Your task to perform on an android device: set the stopwatch Image 0: 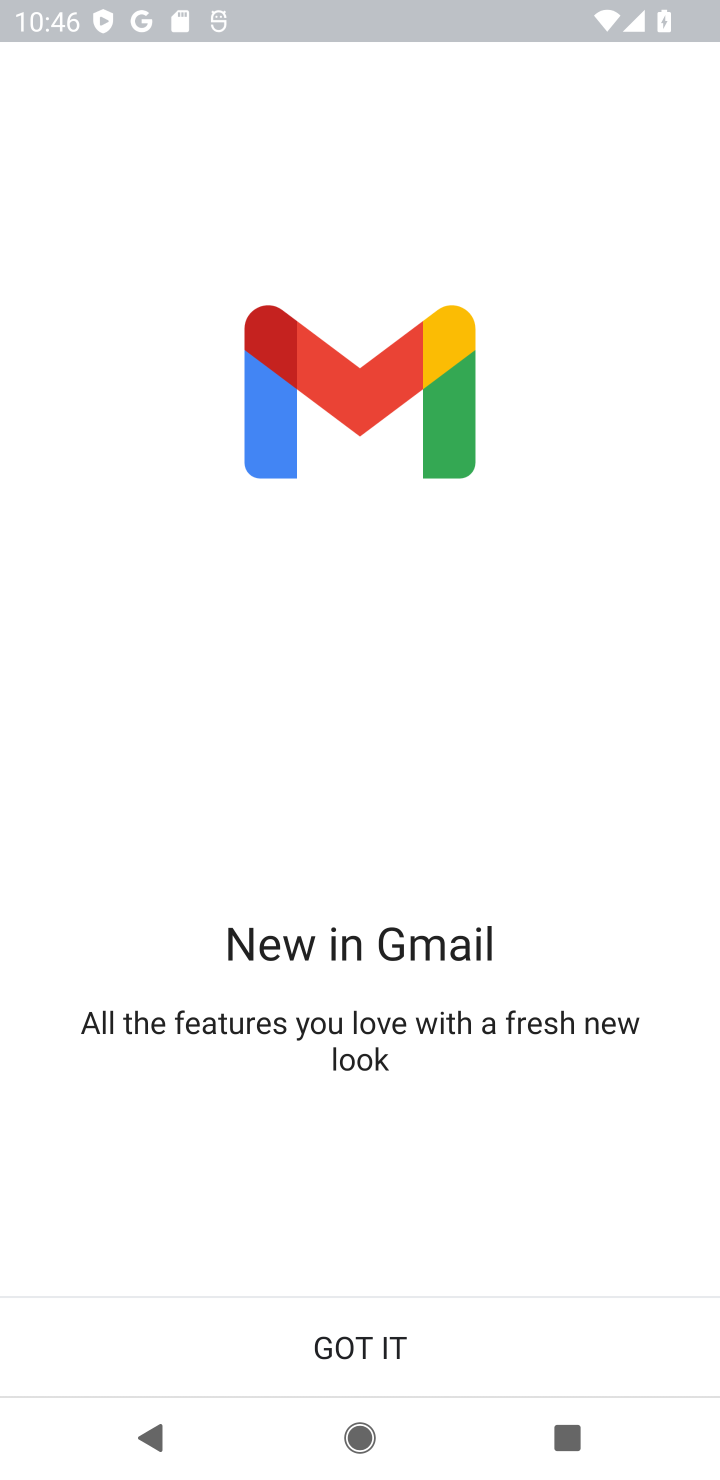
Step 0: press home button
Your task to perform on an android device: set the stopwatch Image 1: 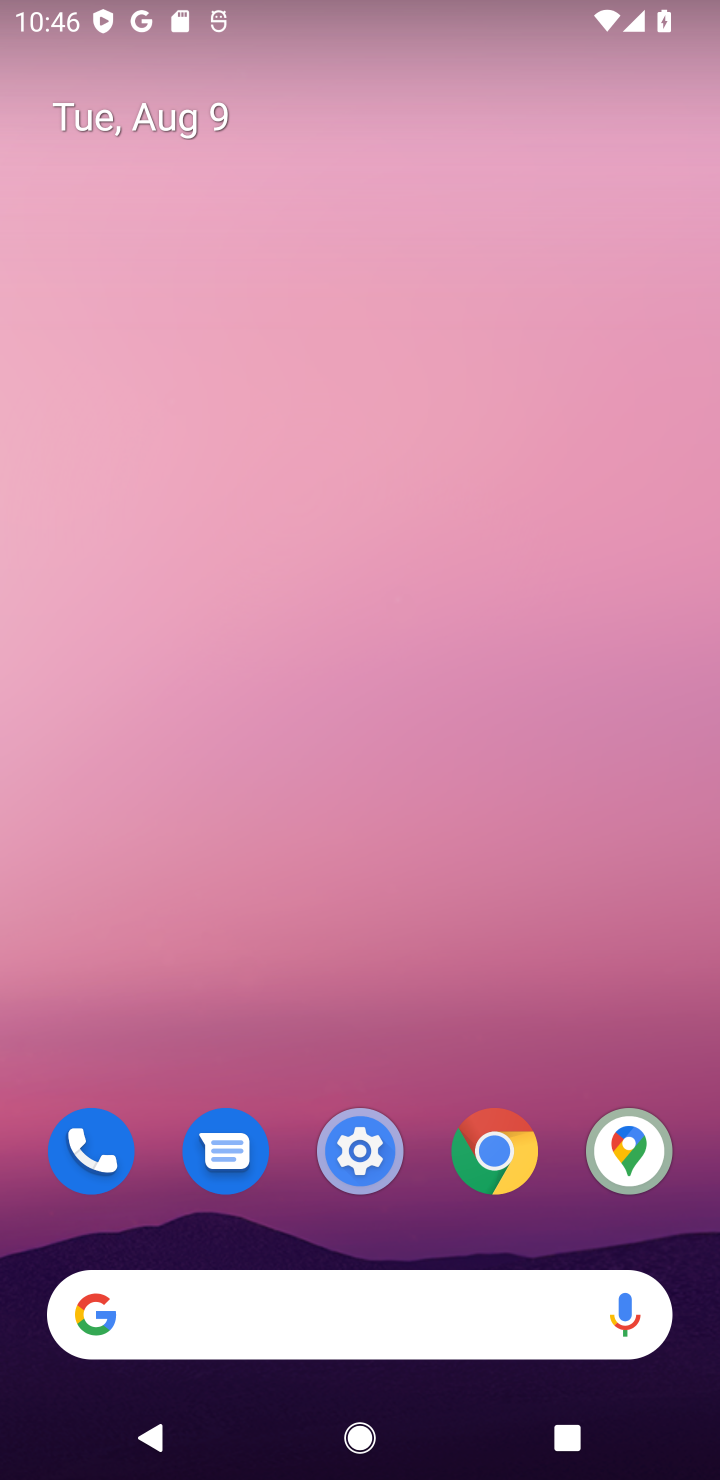
Step 1: drag from (460, 954) to (291, 30)
Your task to perform on an android device: set the stopwatch Image 2: 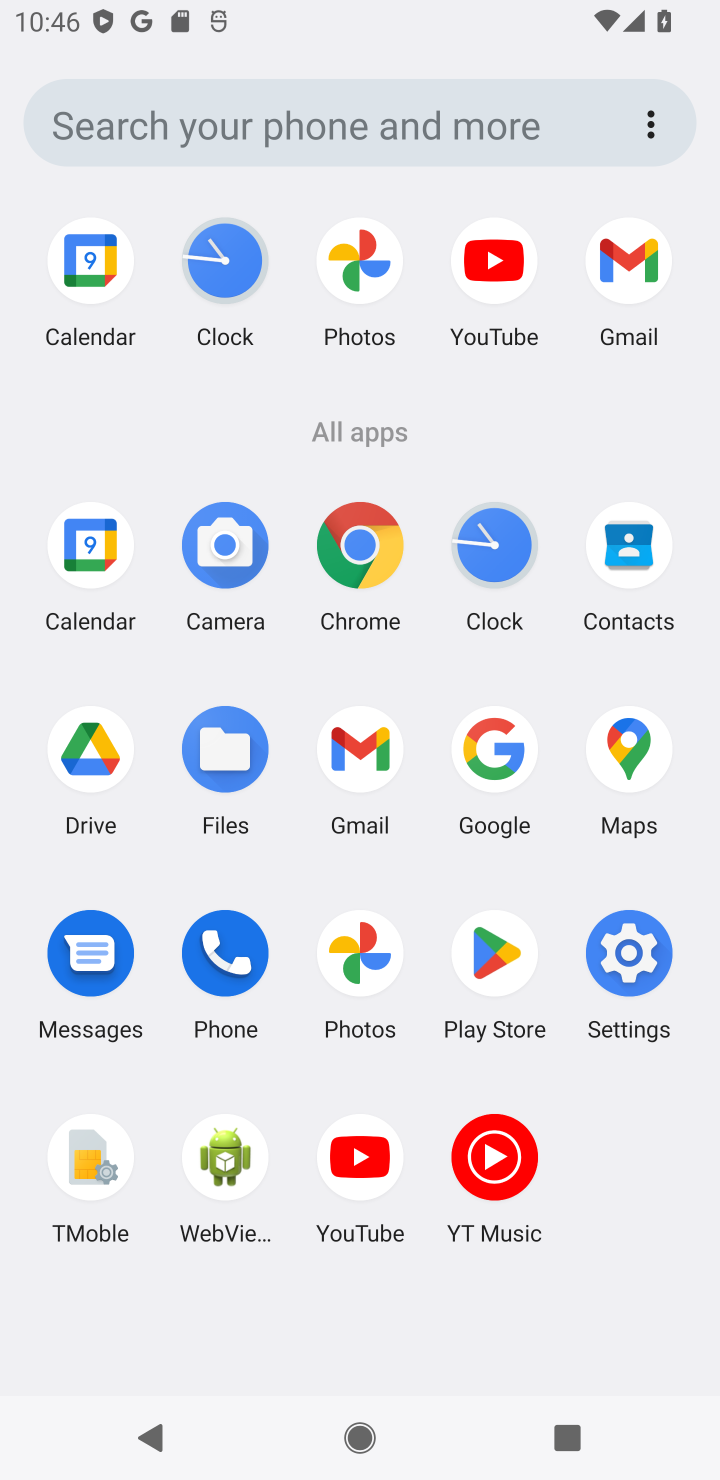
Step 2: click (504, 554)
Your task to perform on an android device: set the stopwatch Image 3: 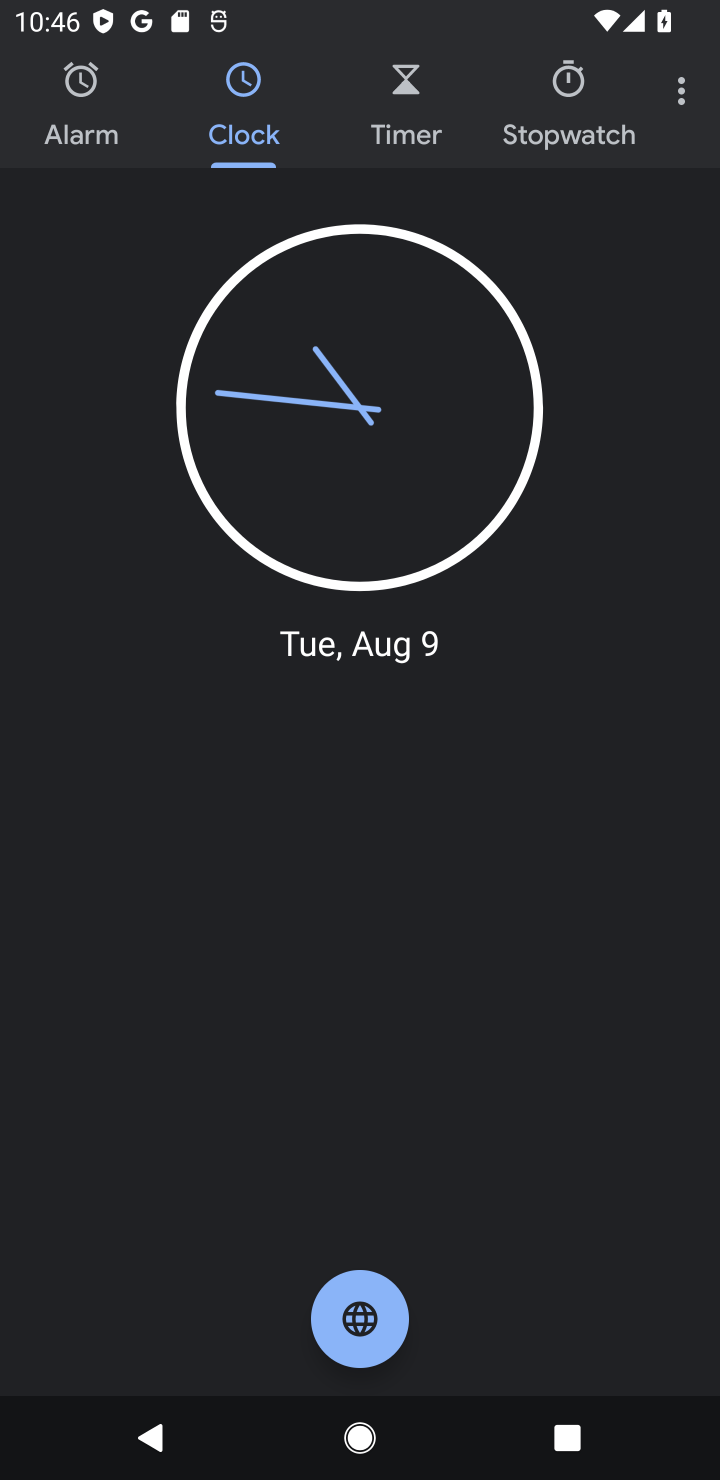
Step 3: click (566, 105)
Your task to perform on an android device: set the stopwatch Image 4: 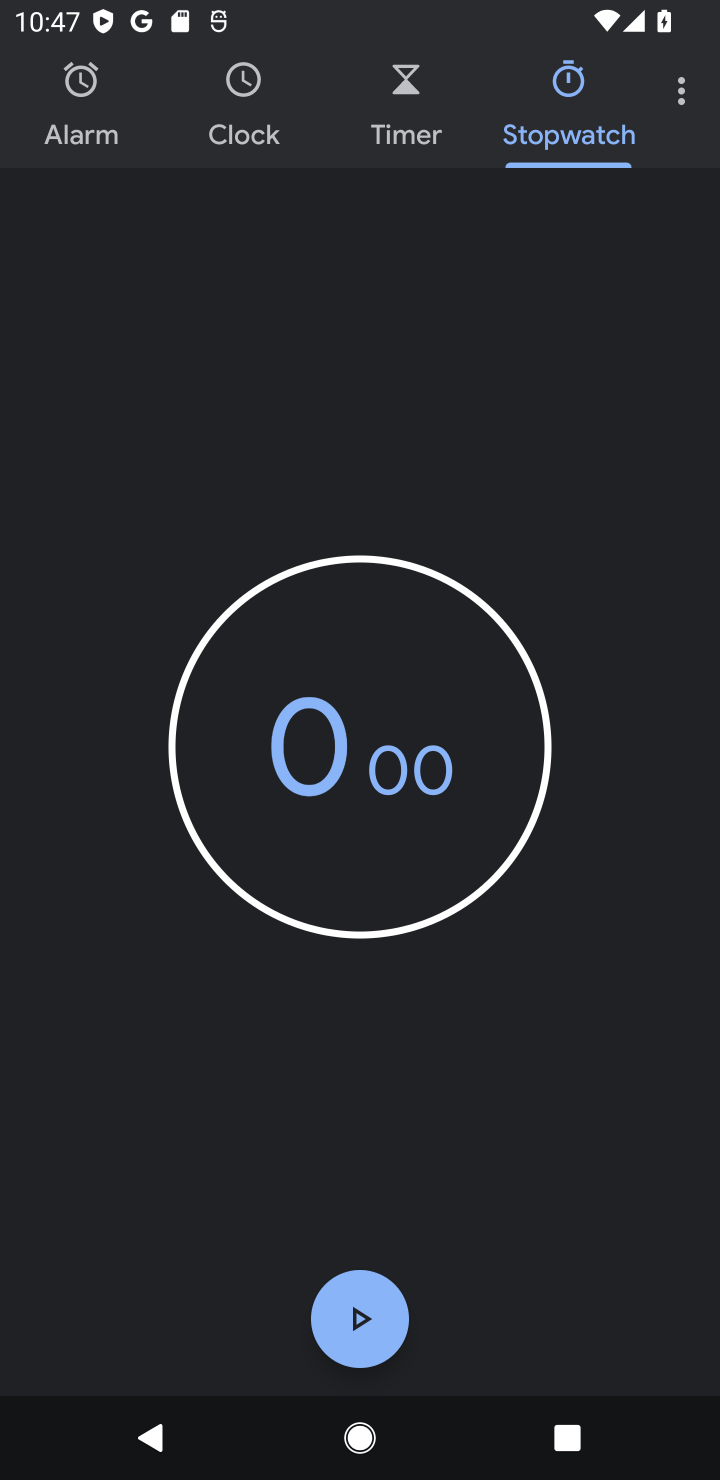
Step 4: click (363, 745)
Your task to perform on an android device: set the stopwatch Image 5: 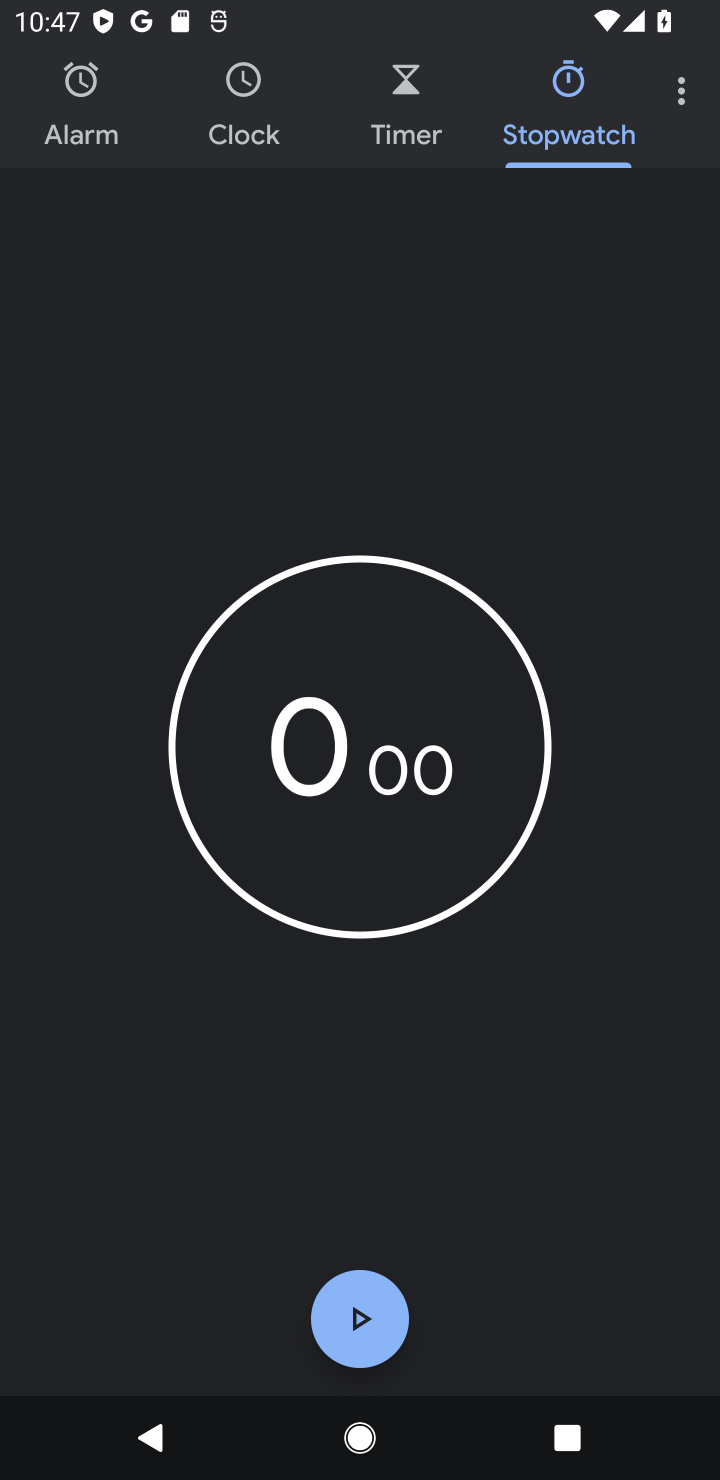
Step 5: click (363, 745)
Your task to perform on an android device: set the stopwatch Image 6: 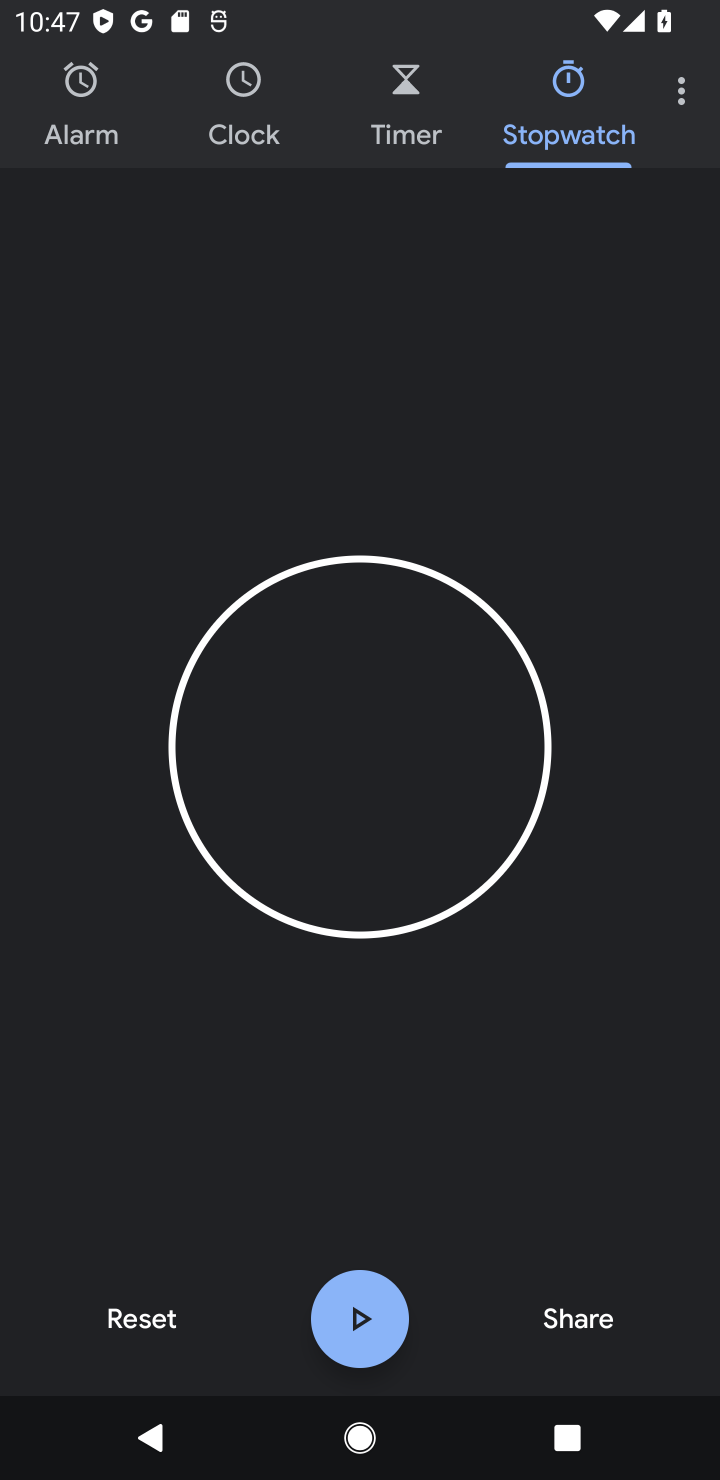
Step 6: click (433, 720)
Your task to perform on an android device: set the stopwatch Image 7: 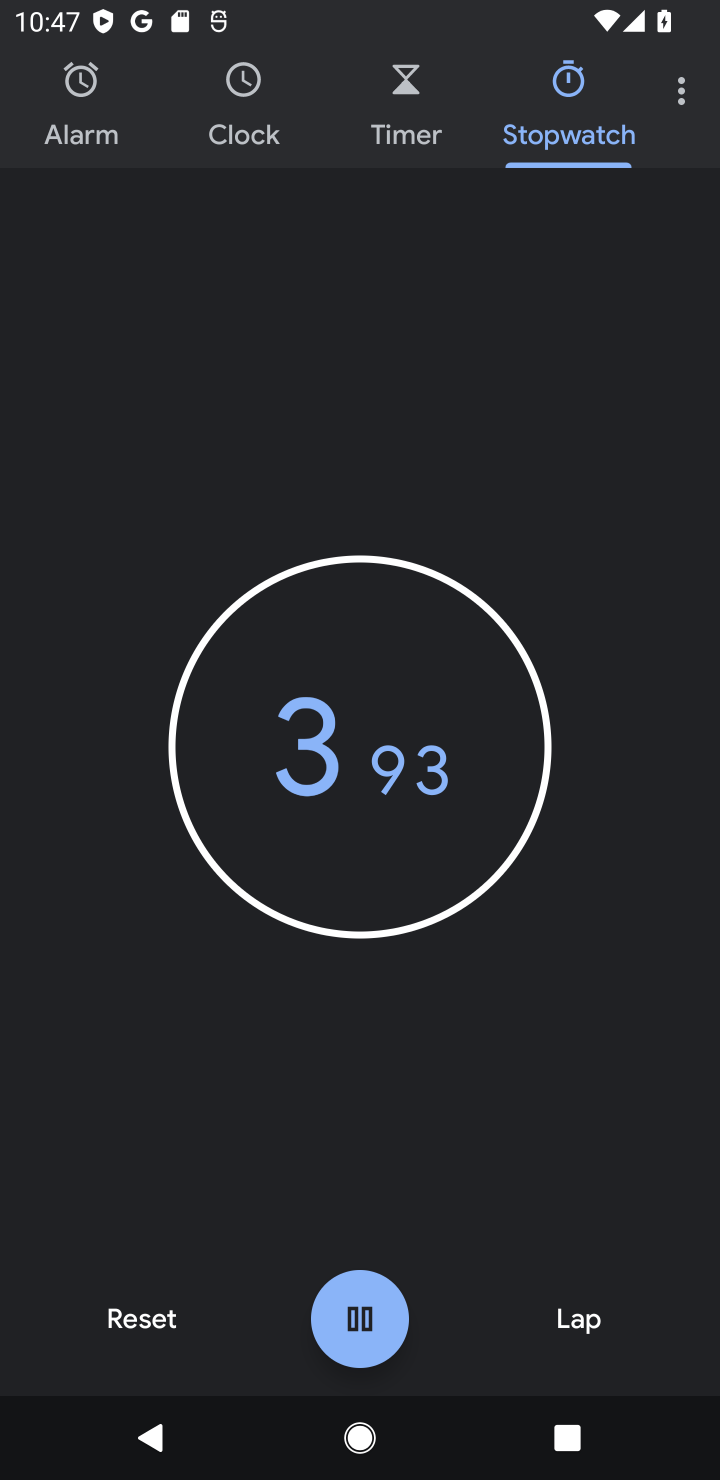
Step 7: task complete